Your task to perform on an android device: Search for pizza restaurants on Maps Image 0: 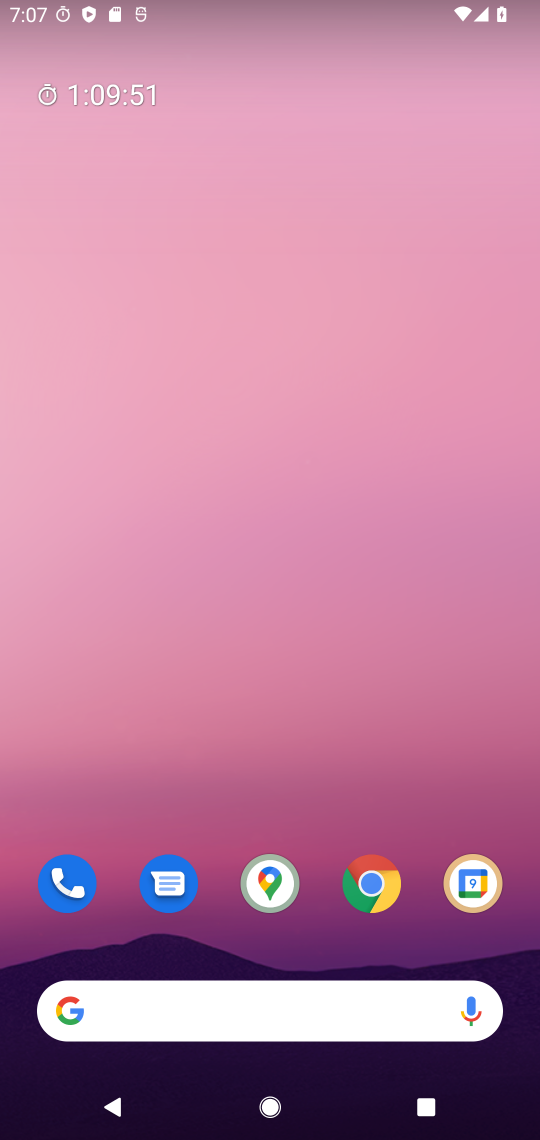
Step 0: click (271, 888)
Your task to perform on an android device: Search for pizza restaurants on Maps Image 1: 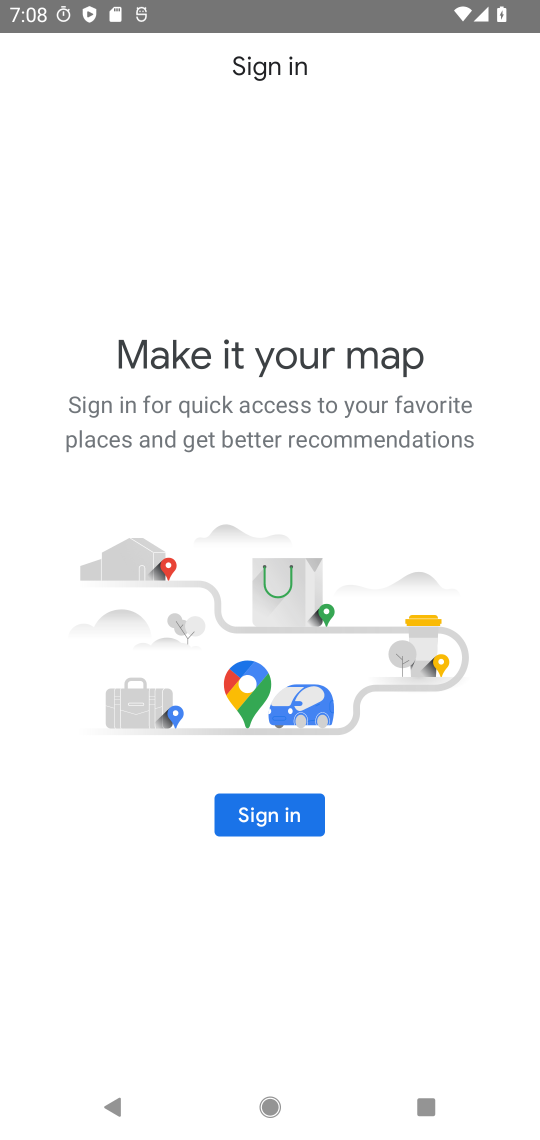
Step 1: task complete